Your task to perform on an android device: create a new album in the google photos Image 0: 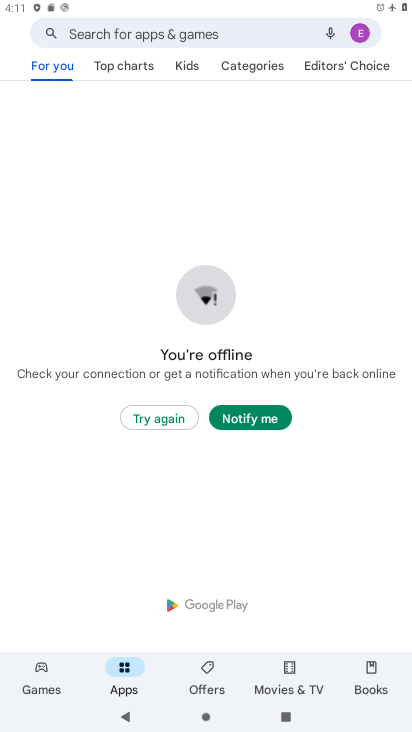
Step 0: press home button
Your task to perform on an android device: create a new album in the google photos Image 1: 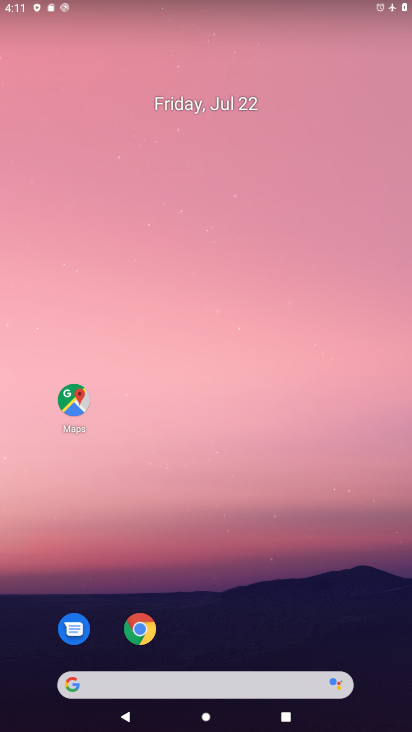
Step 1: drag from (263, 594) to (238, 119)
Your task to perform on an android device: create a new album in the google photos Image 2: 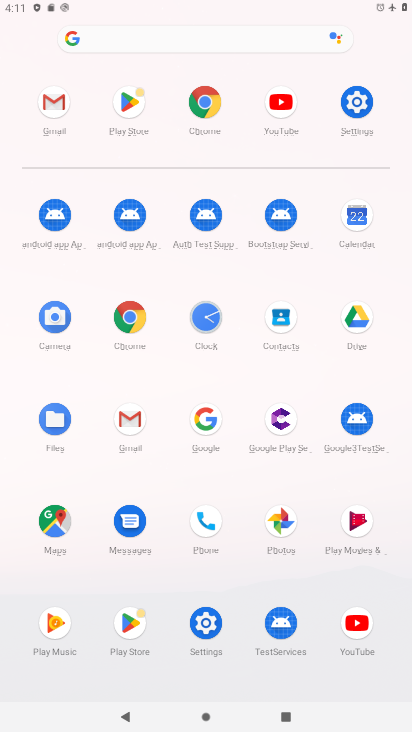
Step 2: click (281, 513)
Your task to perform on an android device: create a new album in the google photos Image 3: 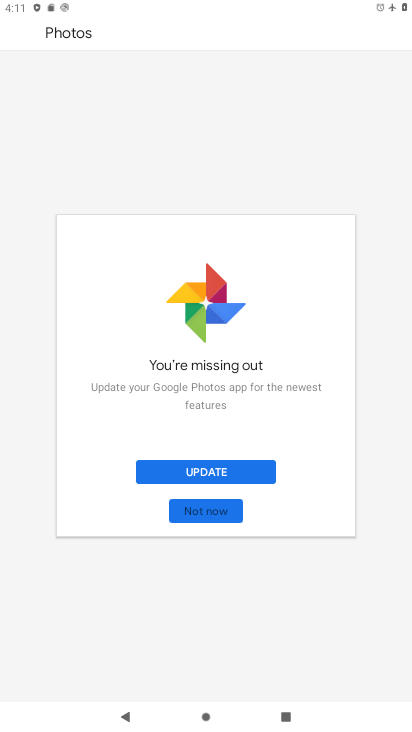
Step 3: click (215, 511)
Your task to perform on an android device: create a new album in the google photos Image 4: 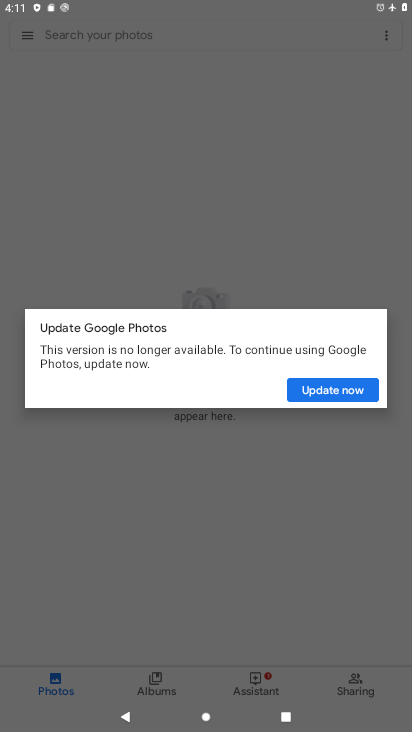
Step 4: task complete